Your task to perform on an android device: clear all cookies in the chrome app Image 0: 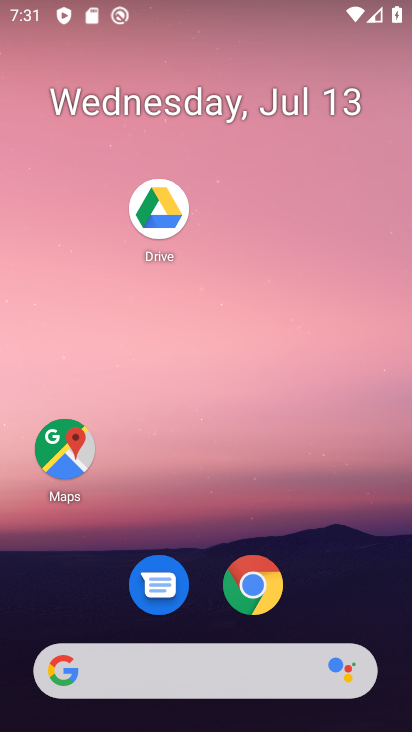
Step 0: click (251, 583)
Your task to perform on an android device: clear all cookies in the chrome app Image 1: 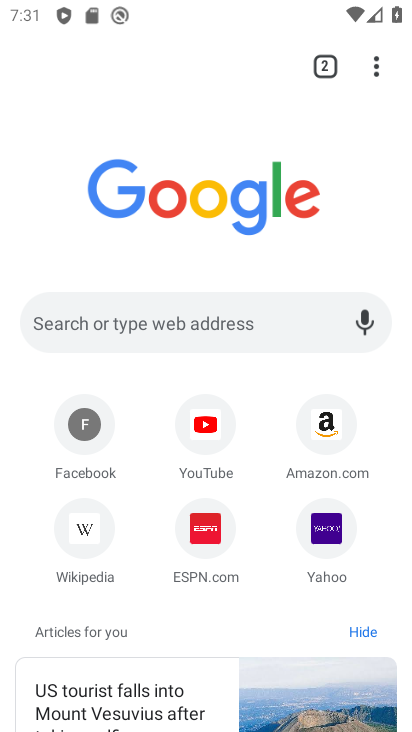
Step 1: drag from (377, 65) to (208, 555)
Your task to perform on an android device: clear all cookies in the chrome app Image 2: 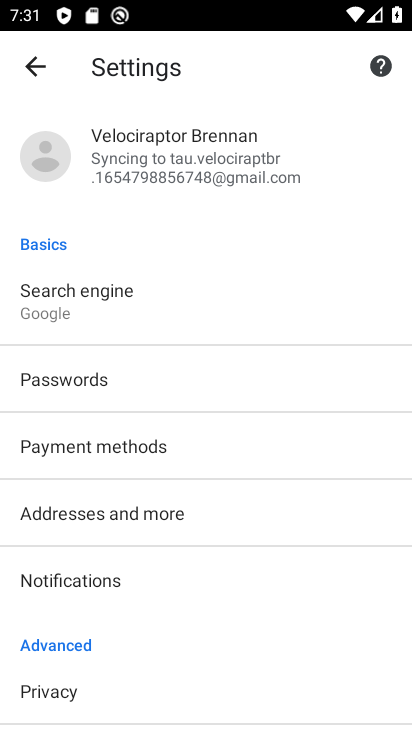
Step 2: drag from (161, 676) to (197, 260)
Your task to perform on an android device: clear all cookies in the chrome app Image 3: 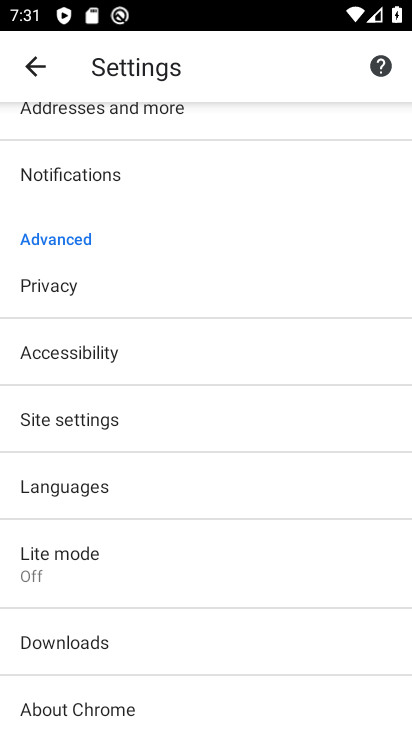
Step 3: click (40, 279)
Your task to perform on an android device: clear all cookies in the chrome app Image 4: 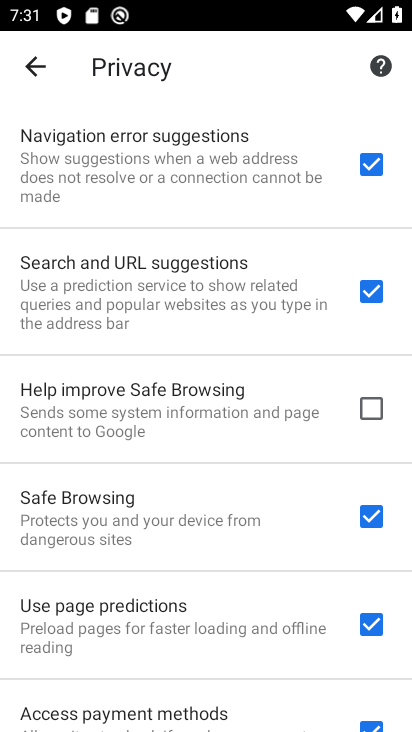
Step 4: drag from (95, 662) to (255, 198)
Your task to perform on an android device: clear all cookies in the chrome app Image 5: 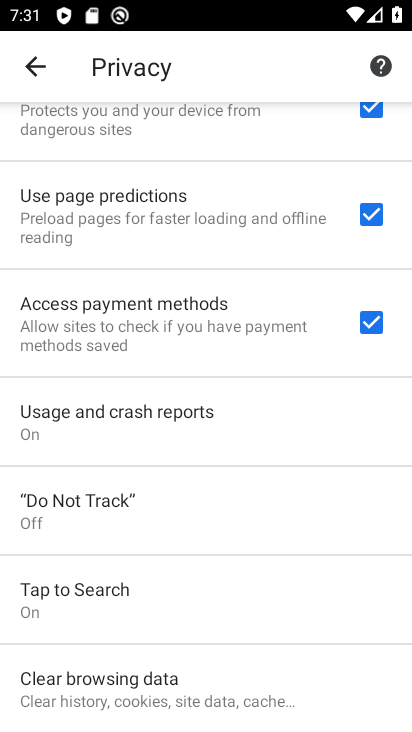
Step 5: click (120, 693)
Your task to perform on an android device: clear all cookies in the chrome app Image 6: 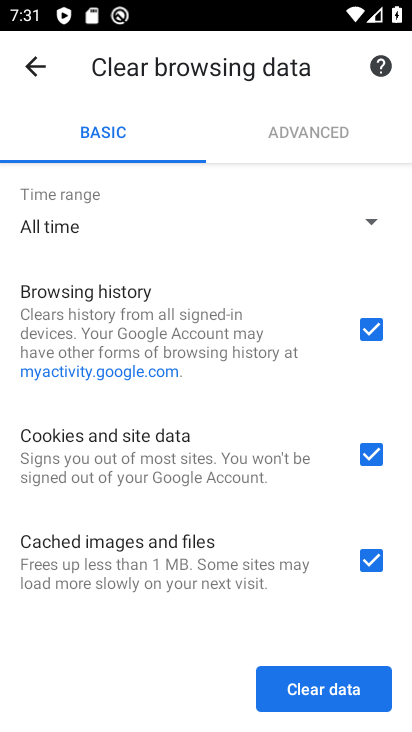
Step 6: click (371, 564)
Your task to perform on an android device: clear all cookies in the chrome app Image 7: 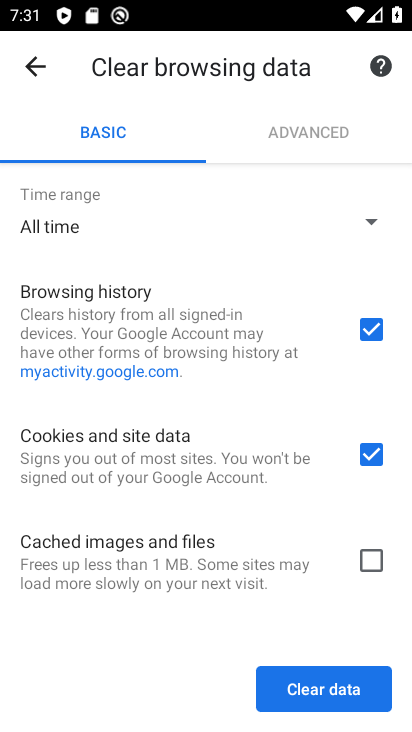
Step 7: click (373, 333)
Your task to perform on an android device: clear all cookies in the chrome app Image 8: 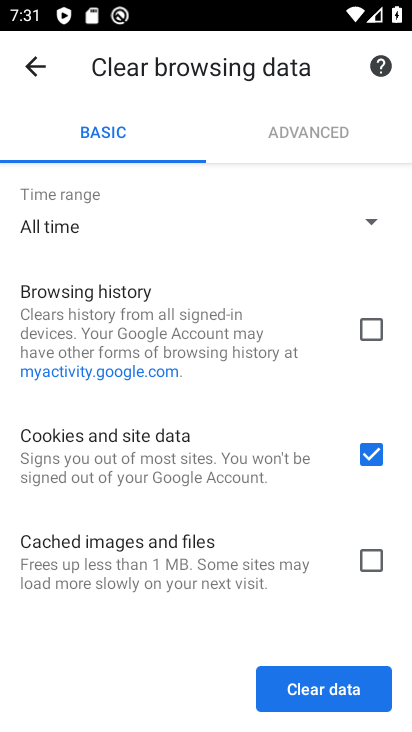
Step 8: click (318, 694)
Your task to perform on an android device: clear all cookies in the chrome app Image 9: 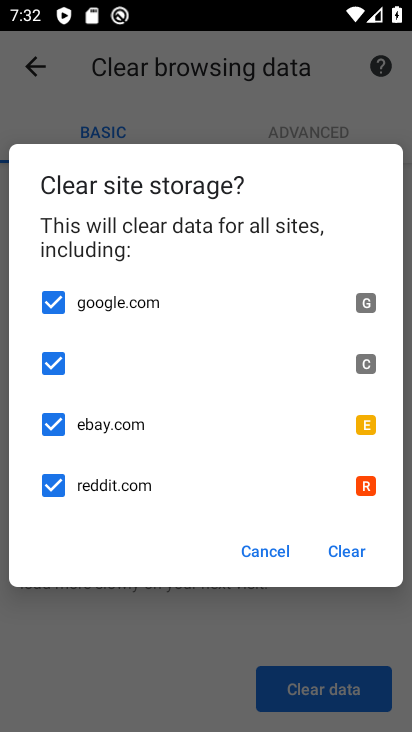
Step 9: click (338, 551)
Your task to perform on an android device: clear all cookies in the chrome app Image 10: 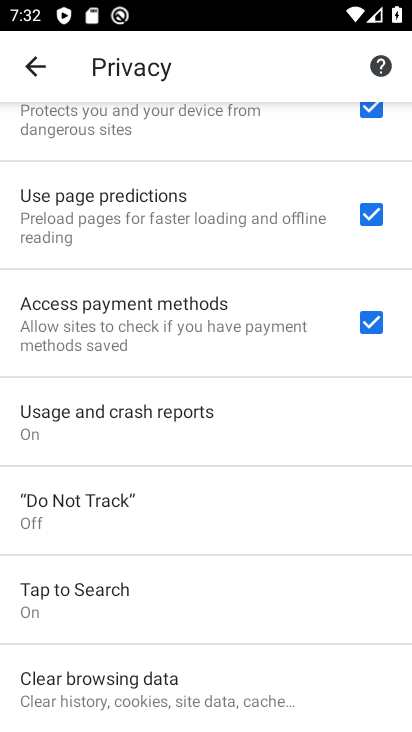
Step 10: task complete